Your task to perform on an android device: Clear all items from cart on walmart. Add razer nari to the cart on walmart, then select checkout. Image 0: 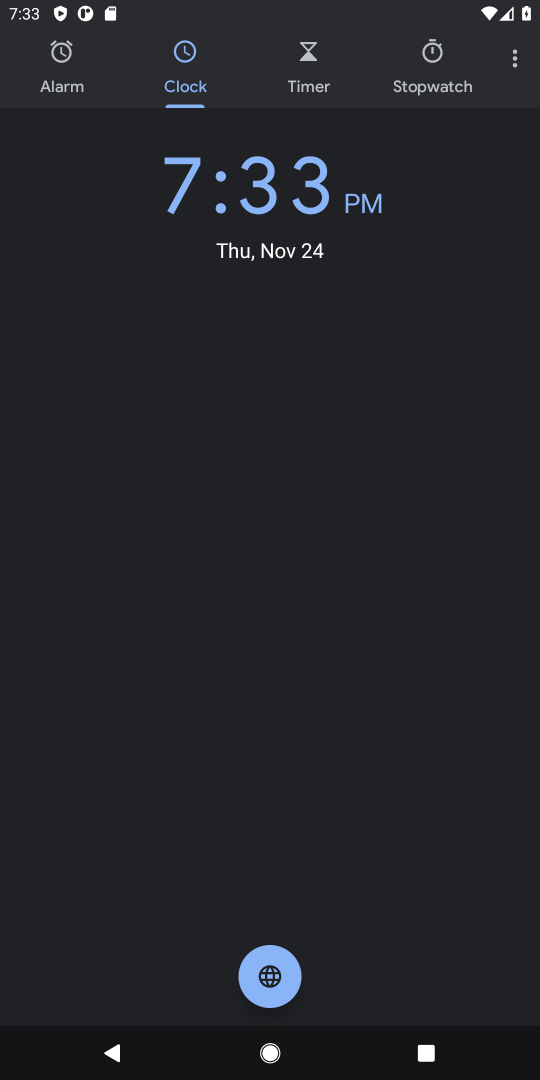
Step 0: press home button
Your task to perform on an android device: Clear all items from cart on walmart. Add razer nari to the cart on walmart, then select checkout. Image 1: 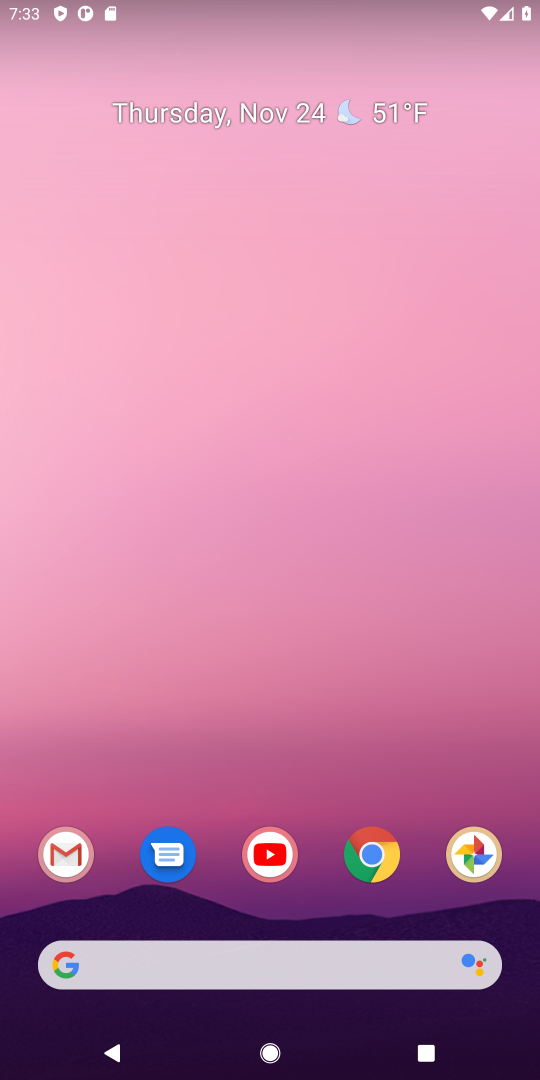
Step 1: click (379, 847)
Your task to perform on an android device: Clear all items from cart on walmart. Add razer nari to the cart on walmart, then select checkout. Image 2: 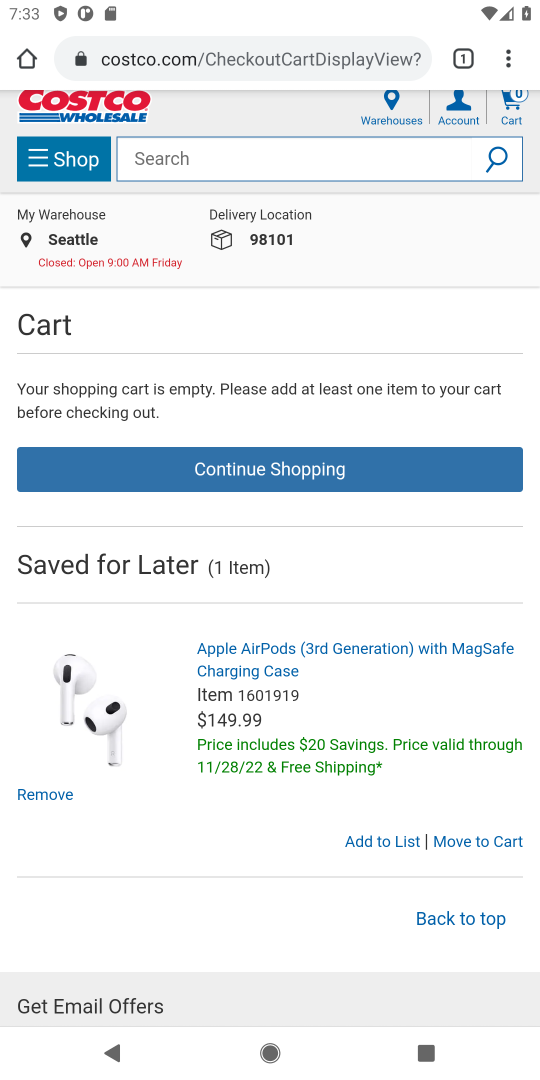
Step 2: click (218, 63)
Your task to perform on an android device: Clear all items from cart on walmart. Add razer nari to the cart on walmart, then select checkout. Image 3: 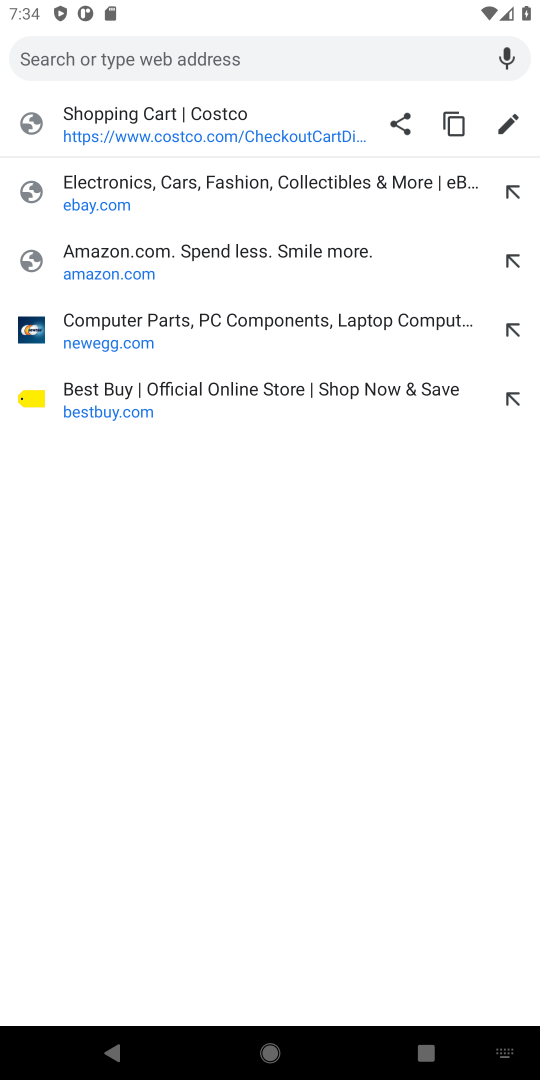
Step 3: type "walmart.com"
Your task to perform on an android device: Clear all items from cart on walmart. Add razer nari to the cart on walmart, then select checkout. Image 4: 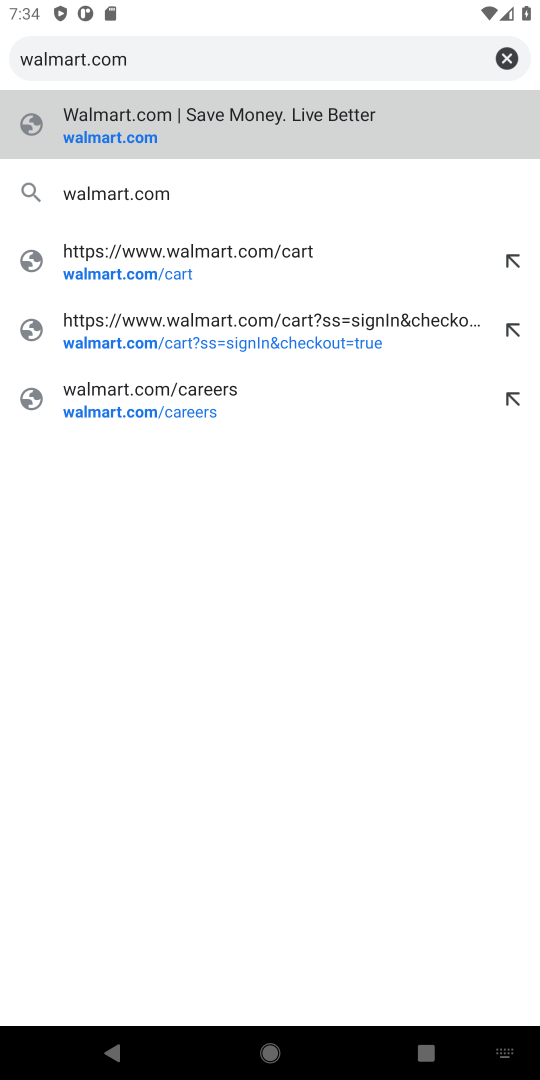
Step 4: click (109, 143)
Your task to perform on an android device: Clear all items from cart on walmart. Add razer nari to the cart on walmart, then select checkout. Image 5: 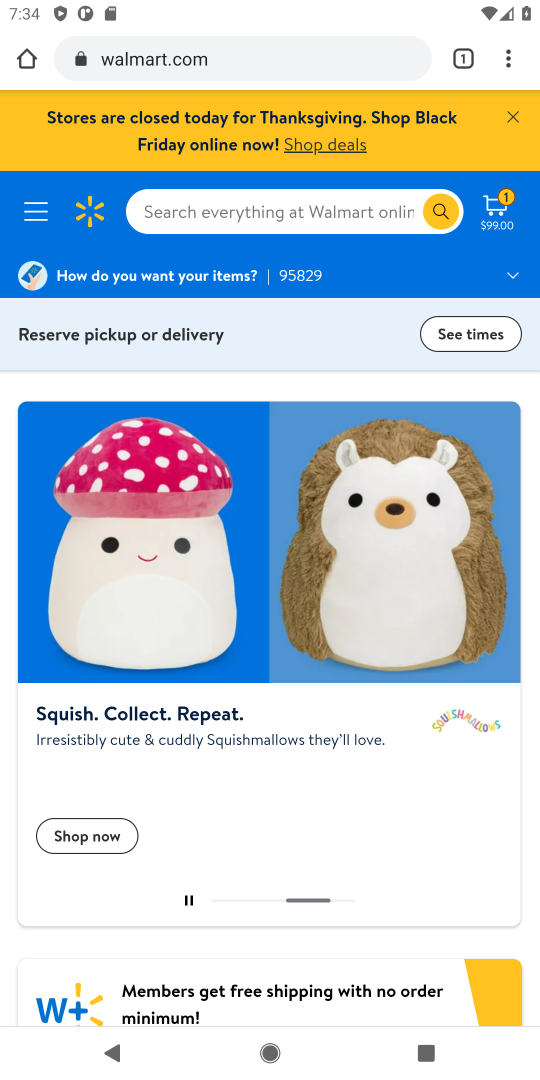
Step 5: click (497, 223)
Your task to perform on an android device: Clear all items from cart on walmart. Add razer nari to the cart on walmart, then select checkout. Image 6: 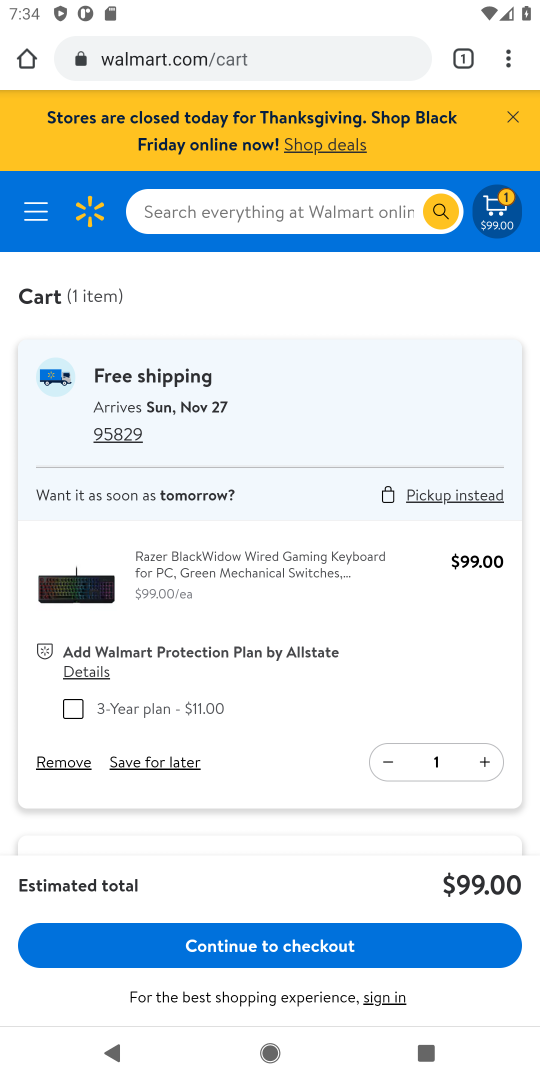
Step 6: click (69, 769)
Your task to perform on an android device: Clear all items from cart on walmart. Add razer nari to the cart on walmart, then select checkout. Image 7: 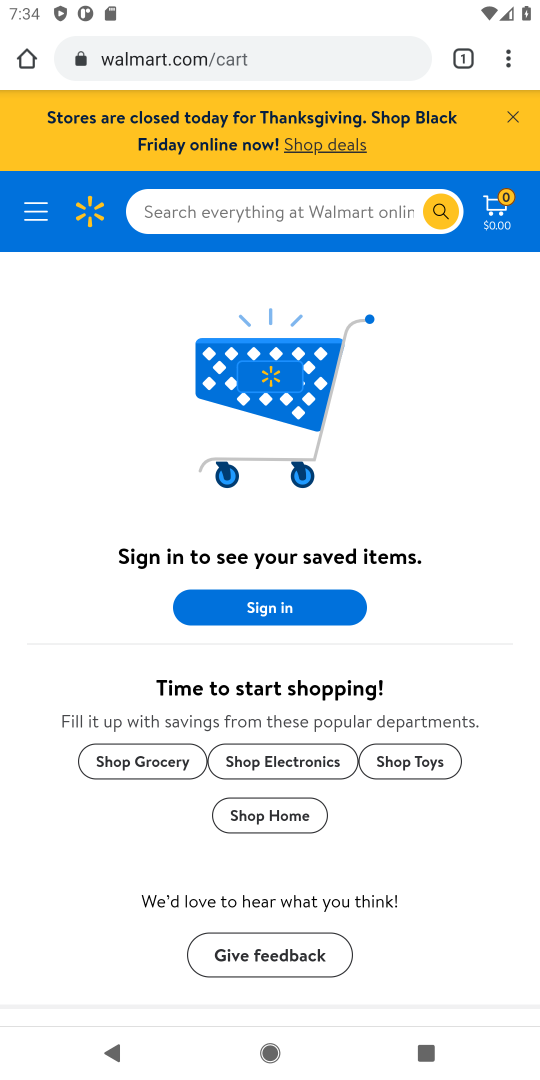
Step 7: click (231, 206)
Your task to perform on an android device: Clear all items from cart on walmart. Add razer nari to the cart on walmart, then select checkout. Image 8: 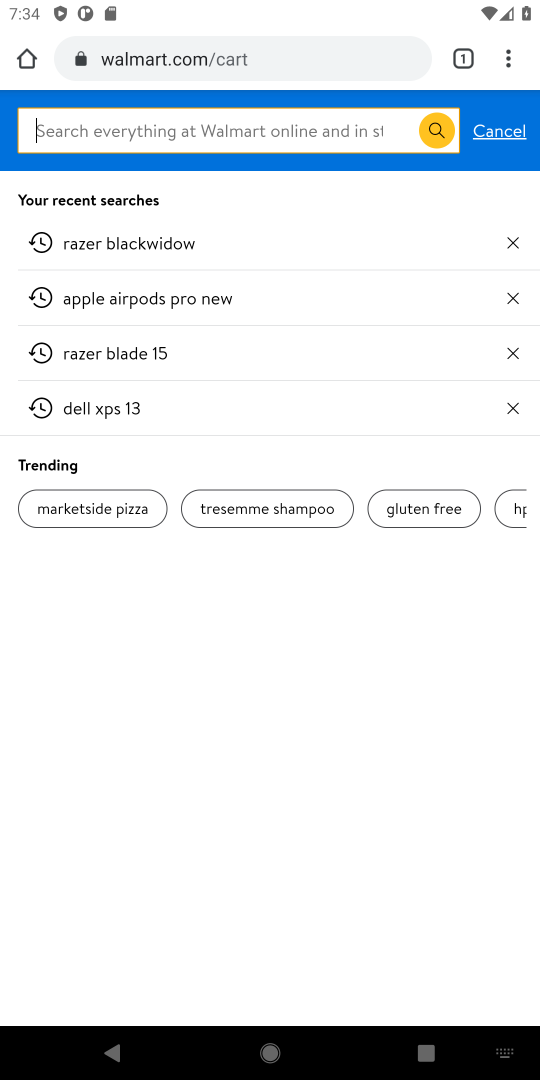
Step 8: type " razer nari"
Your task to perform on an android device: Clear all items from cart on walmart. Add razer nari to the cart on walmart, then select checkout. Image 9: 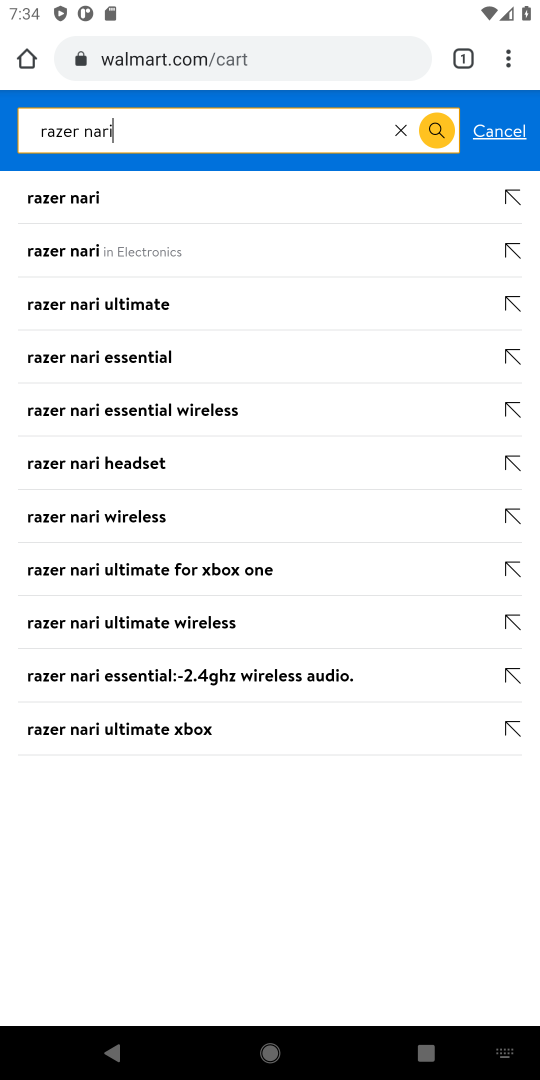
Step 9: click (89, 201)
Your task to perform on an android device: Clear all items from cart on walmart. Add razer nari to the cart on walmart, then select checkout. Image 10: 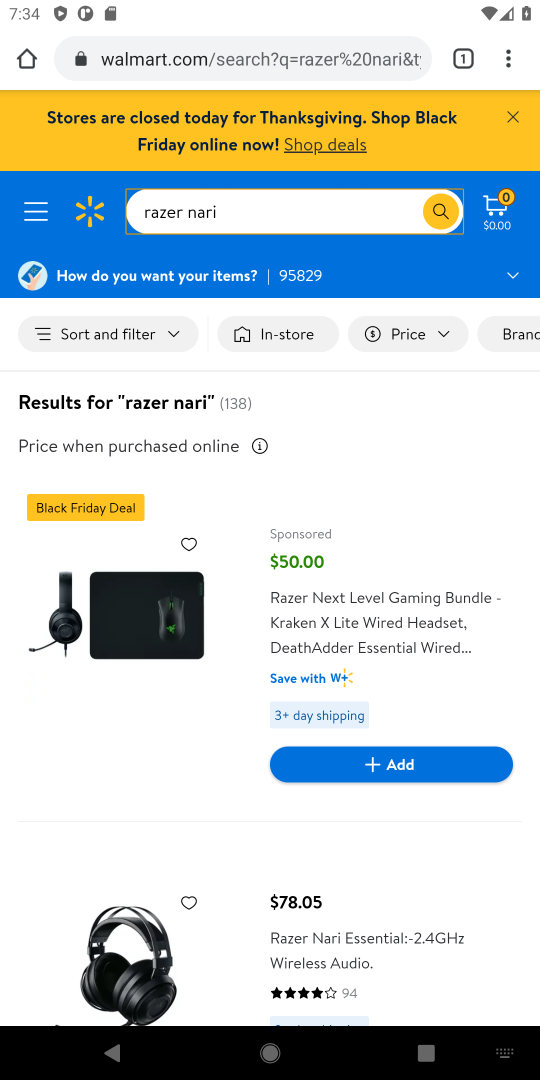
Step 10: drag from (342, 796) to (347, 475)
Your task to perform on an android device: Clear all items from cart on walmart. Add razer nari to the cart on walmart, then select checkout. Image 11: 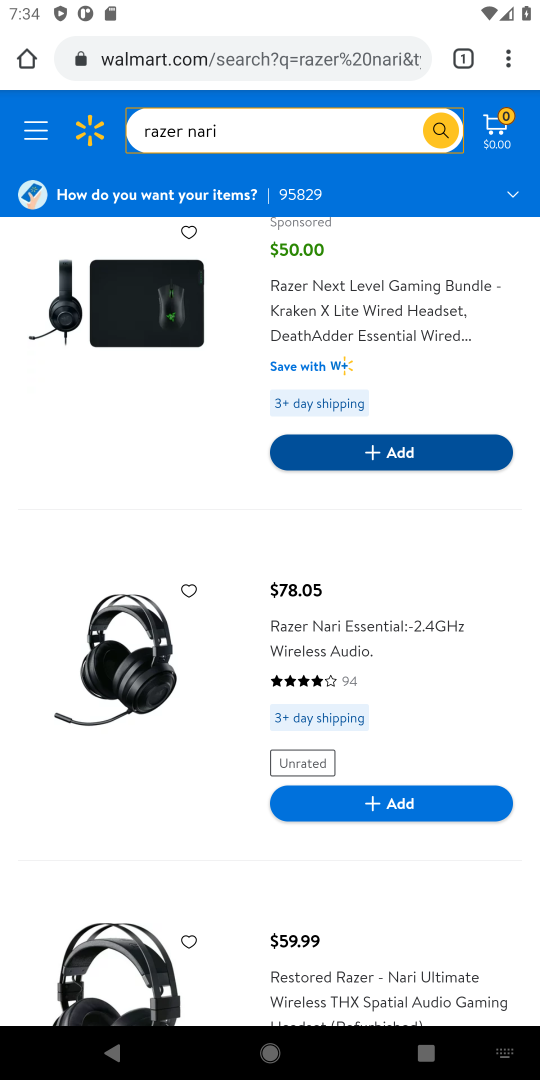
Step 11: click (366, 810)
Your task to perform on an android device: Clear all items from cart on walmart. Add razer nari to the cart on walmart, then select checkout. Image 12: 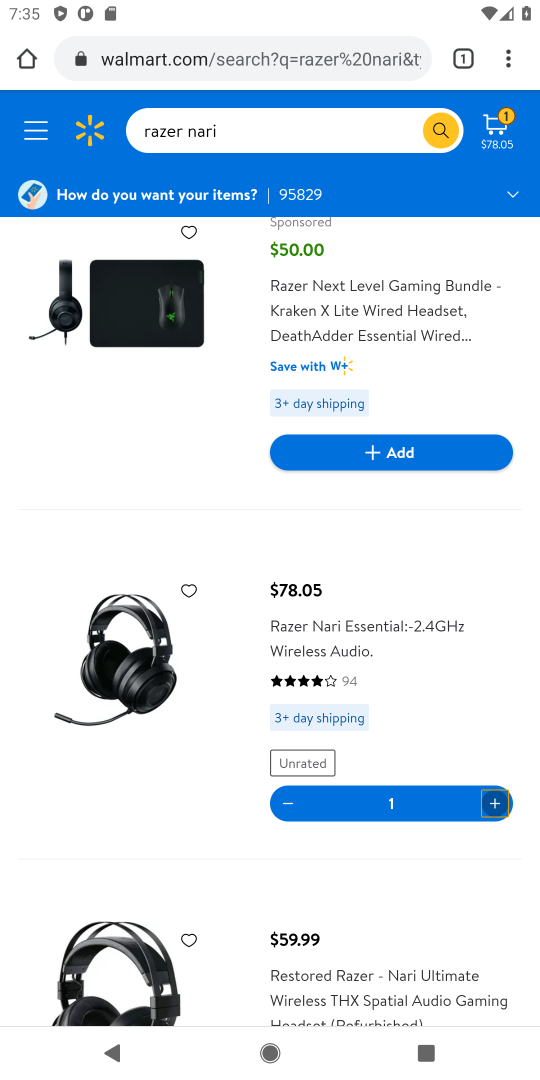
Step 12: click (502, 142)
Your task to perform on an android device: Clear all items from cart on walmart. Add razer nari to the cart on walmart, then select checkout. Image 13: 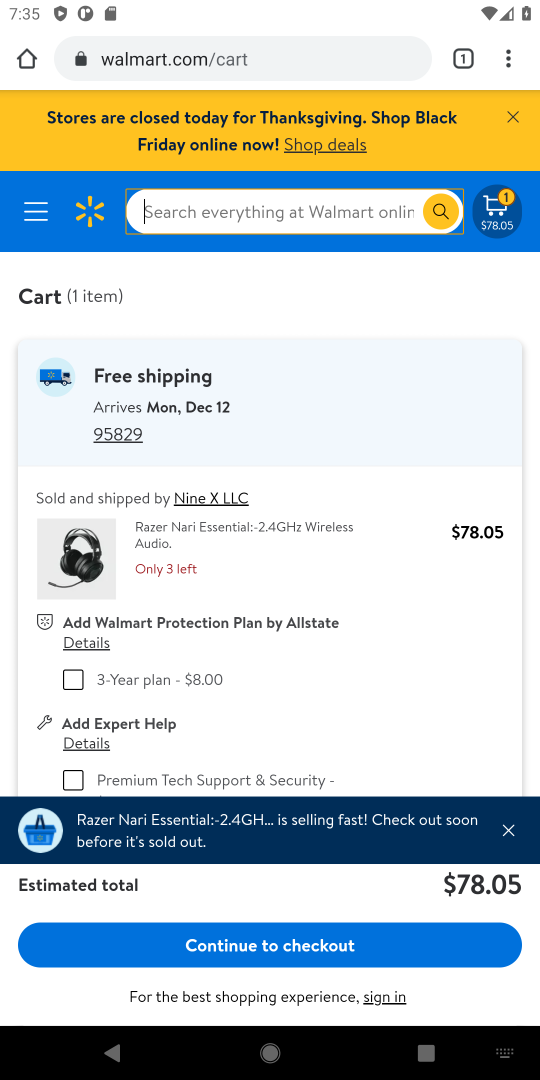
Step 13: click (263, 945)
Your task to perform on an android device: Clear all items from cart on walmart. Add razer nari to the cart on walmart, then select checkout. Image 14: 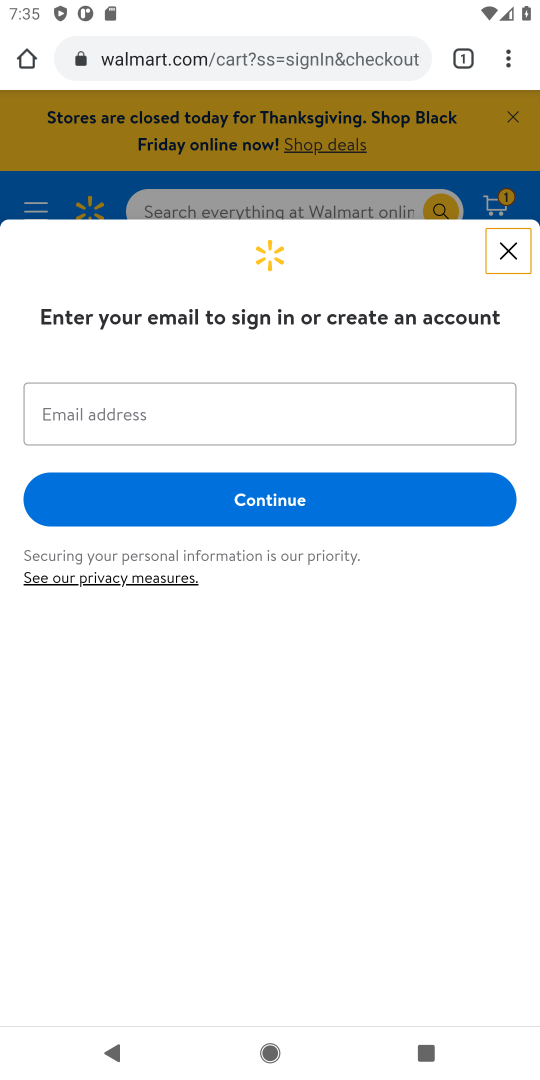
Step 14: task complete